Your task to perform on an android device: Open Wikipedia Image 0: 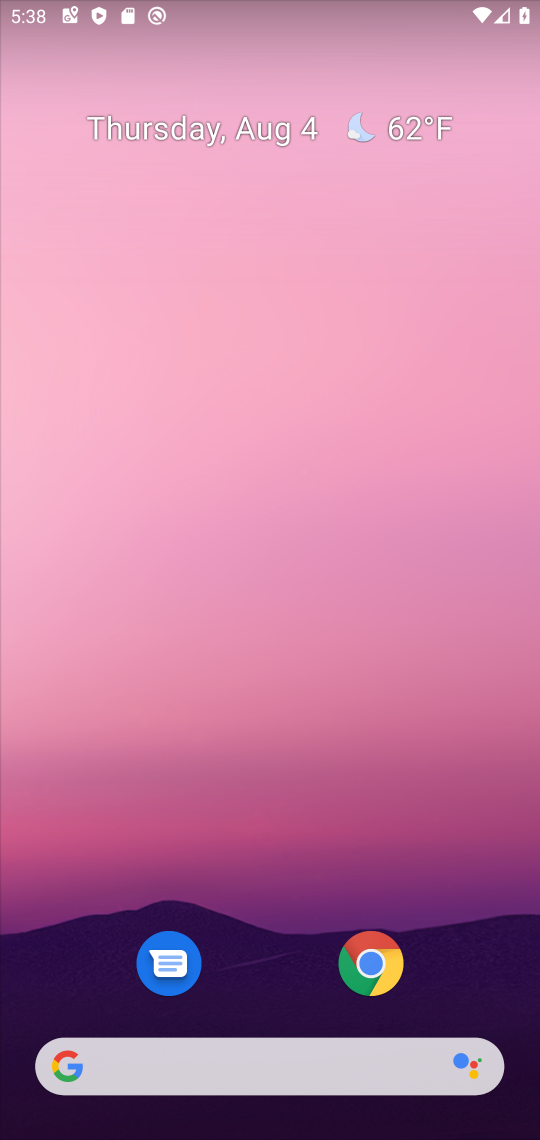
Step 0: click (374, 965)
Your task to perform on an android device: Open Wikipedia Image 1: 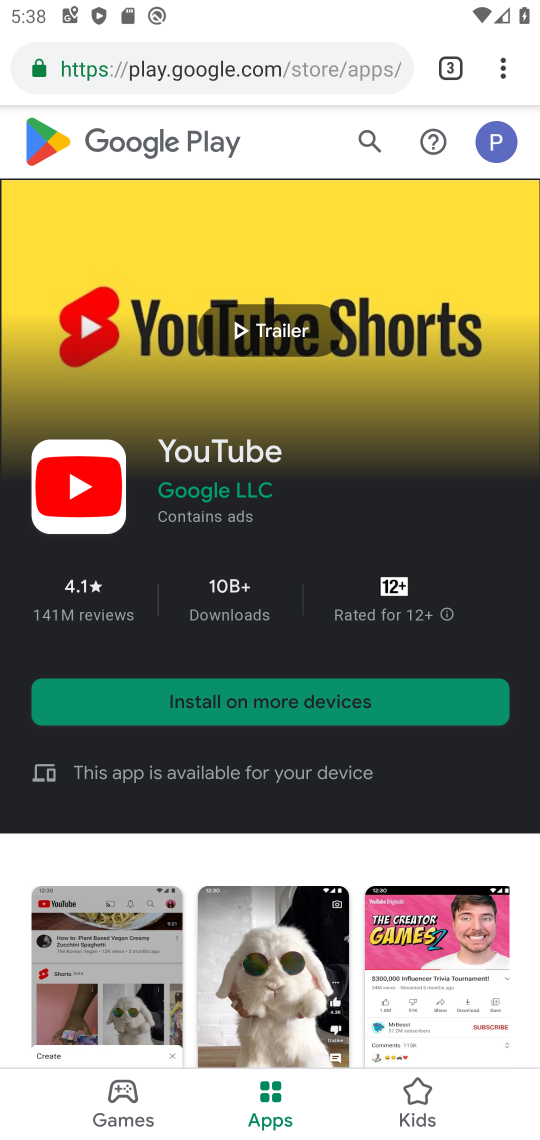
Step 1: click (510, 53)
Your task to perform on an android device: Open Wikipedia Image 2: 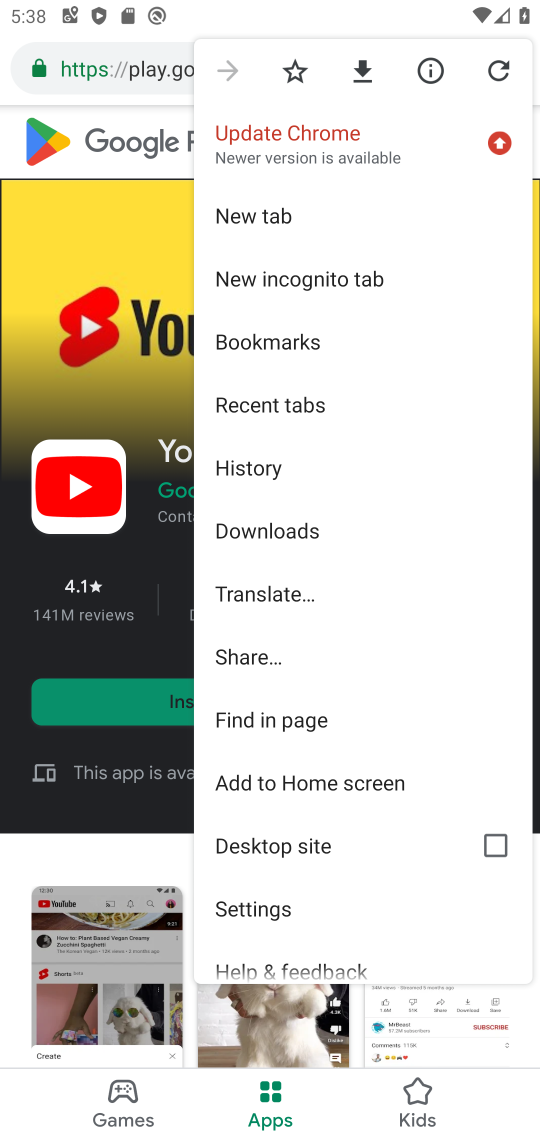
Step 2: click (255, 211)
Your task to perform on an android device: Open Wikipedia Image 3: 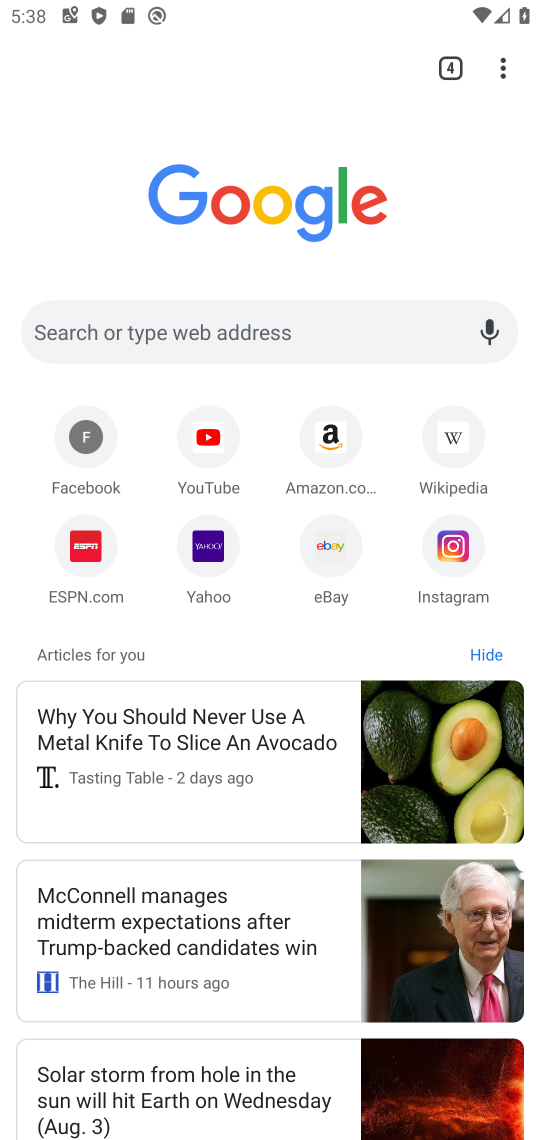
Step 3: click (453, 430)
Your task to perform on an android device: Open Wikipedia Image 4: 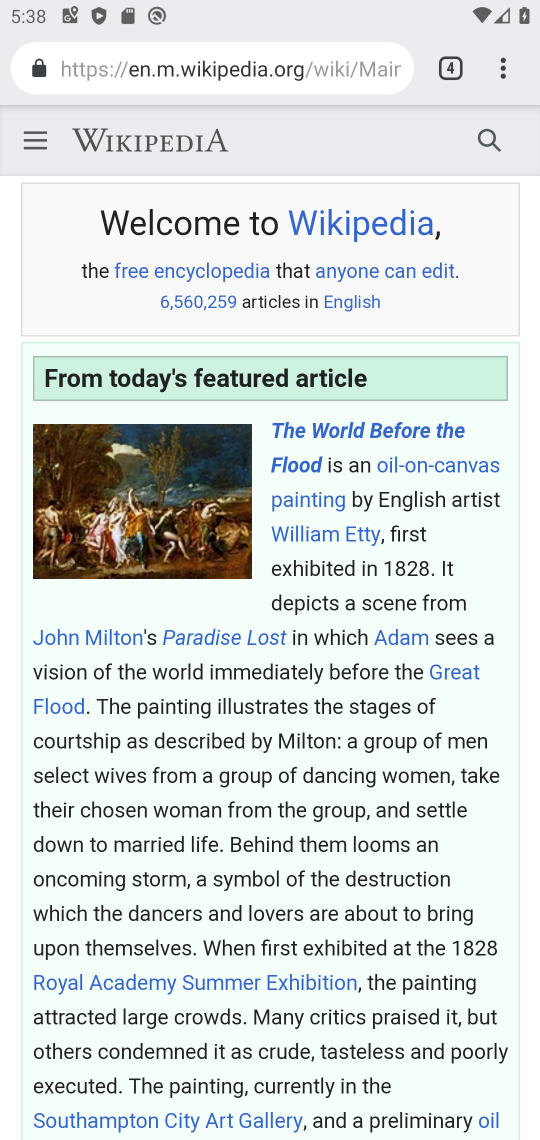
Step 4: task complete